Your task to perform on an android device: Go to Yahoo.com Image 0: 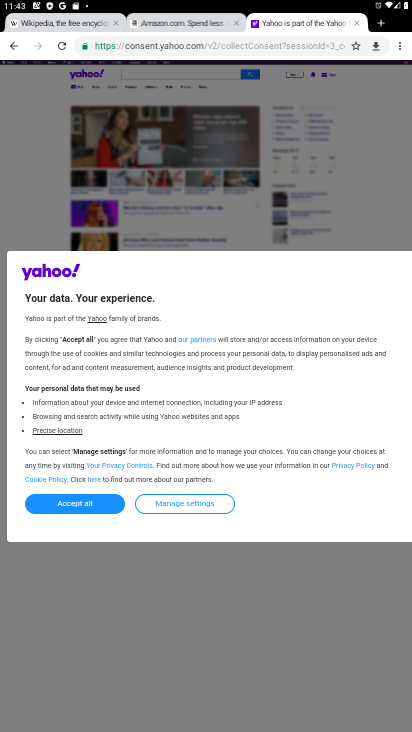
Step 0: press home button
Your task to perform on an android device: Go to Yahoo.com Image 1: 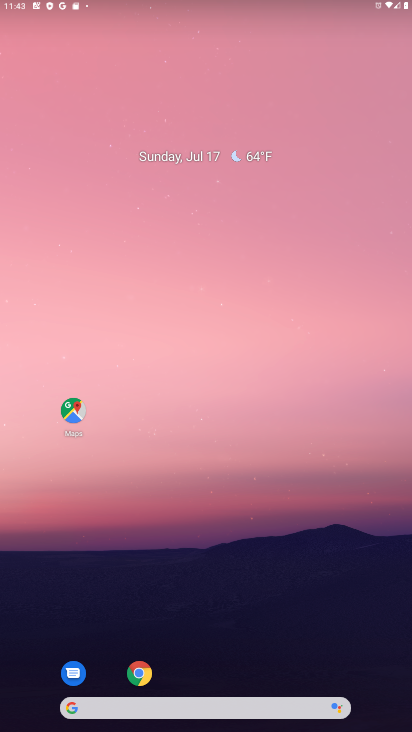
Step 1: click (204, 675)
Your task to perform on an android device: Go to Yahoo.com Image 2: 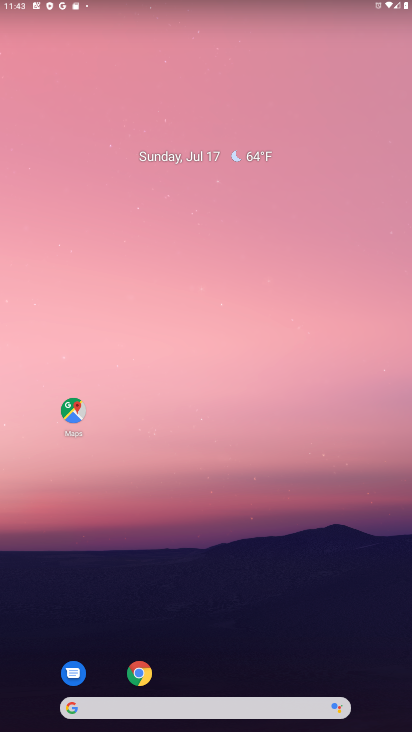
Step 2: click (142, 671)
Your task to perform on an android device: Go to Yahoo.com Image 3: 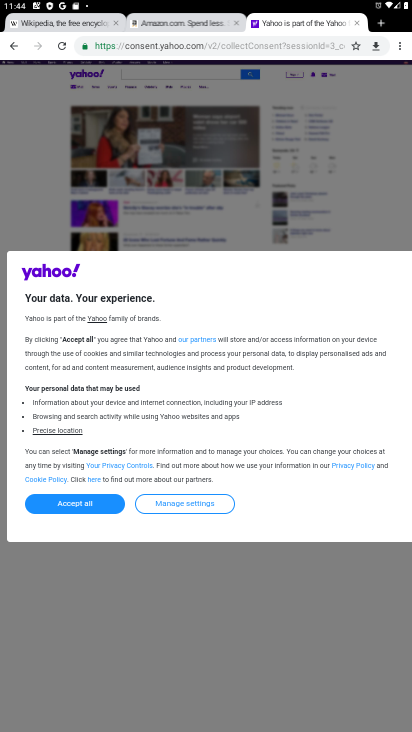
Step 3: task complete